Your task to perform on an android device: toggle airplane mode Image 0: 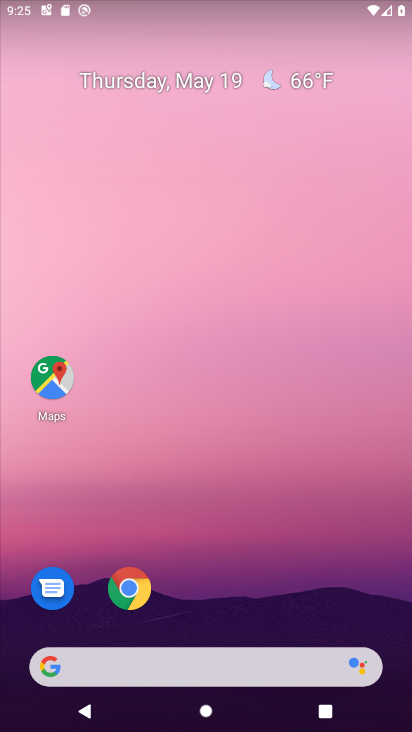
Step 0: drag from (353, 597) to (350, 238)
Your task to perform on an android device: toggle airplane mode Image 1: 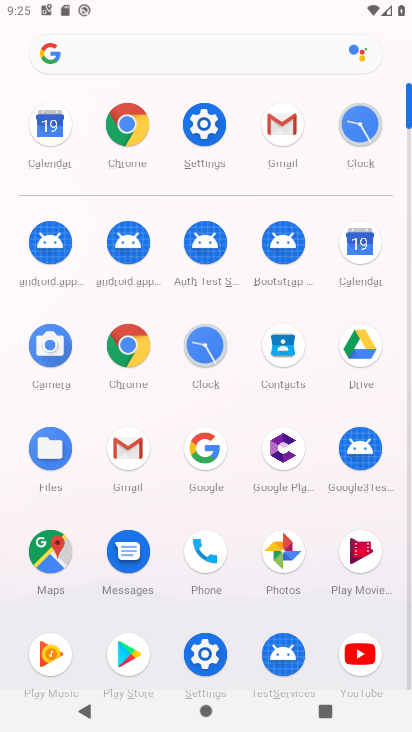
Step 1: click (212, 663)
Your task to perform on an android device: toggle airplane mode Image 2: 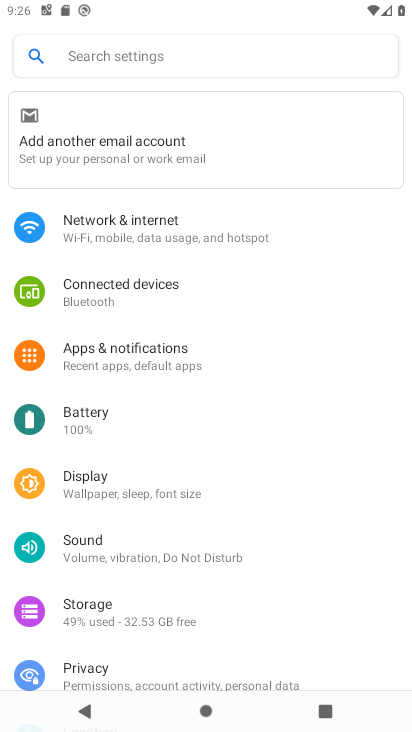
Step 2: drag from (323, 643) to (352, 535)
Your task to perform on an android device: toggle airplane mode Image 3: 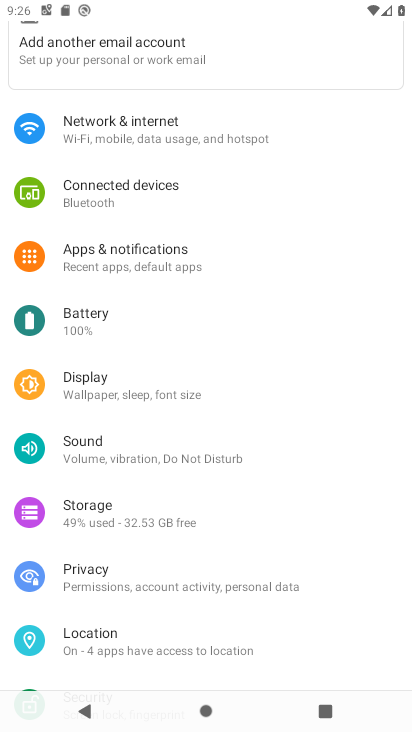
Step 3: drag from (347, 627) to (364, 486)
Your task to perform on an android device: toggle airplane mode Image 4: 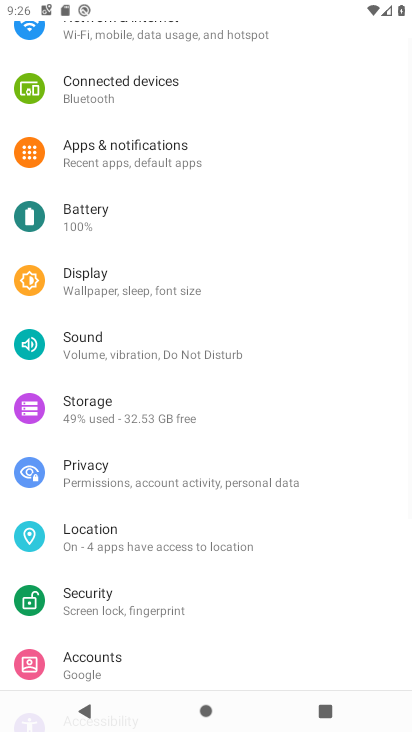
Step 4: drag from (340, 638) to (360, 502)
Your task to perform on an android device: toggle airplane mode Image 5: 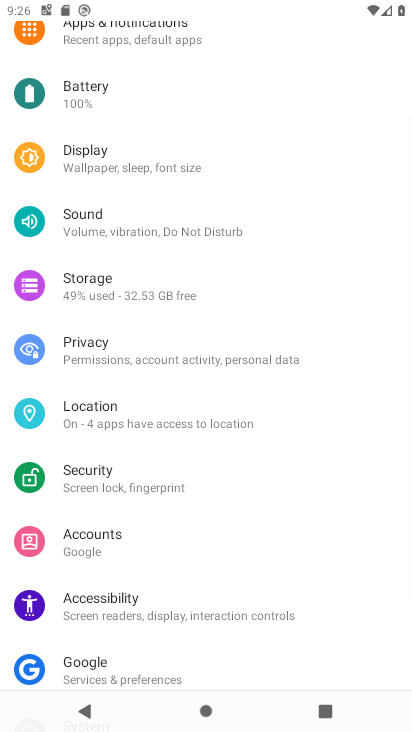
Step 5: drag from (373, 625) to (380, 491)
Your task to perform on an android device: toggle airplane mode Image 6: 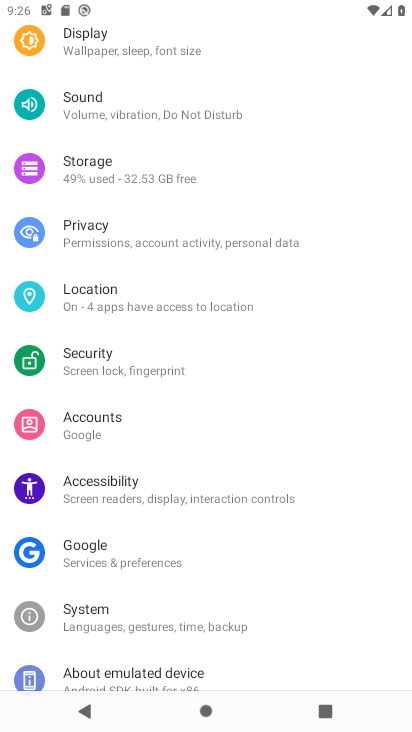
Step 6: drag from (379, 584) to (394, 478)
Your task to perform on an android device: toggle airplane mode Image 7: 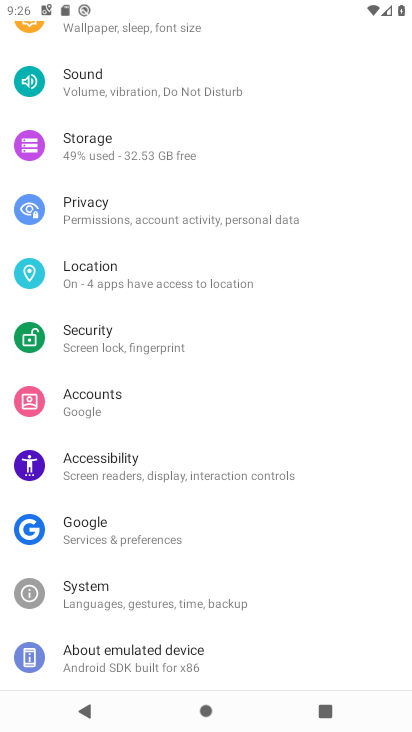
Step 7: drag from (378, 363) to (365, 441)
Your task to perform on an android device: toggle airplane mode Image 8: 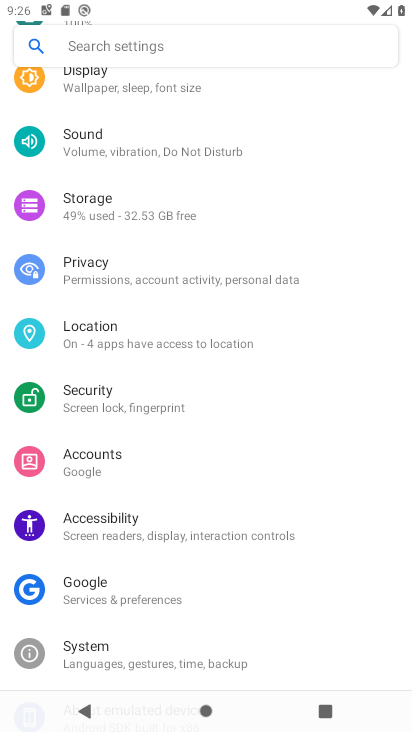
Step 8: drag from (372, 323) to (371, 386)
Your task to perform on an android device: toggle airplane mode Image 9: 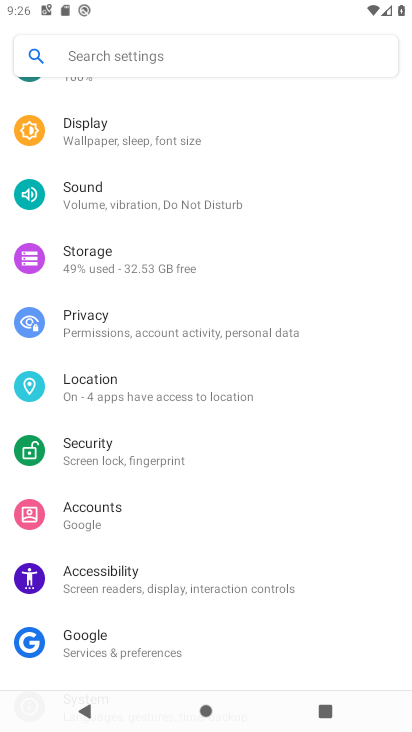
Step 9: drag from (367, 331) to (368, 437)
Your task to perform on an android device: toggle airplane mode Image 10: 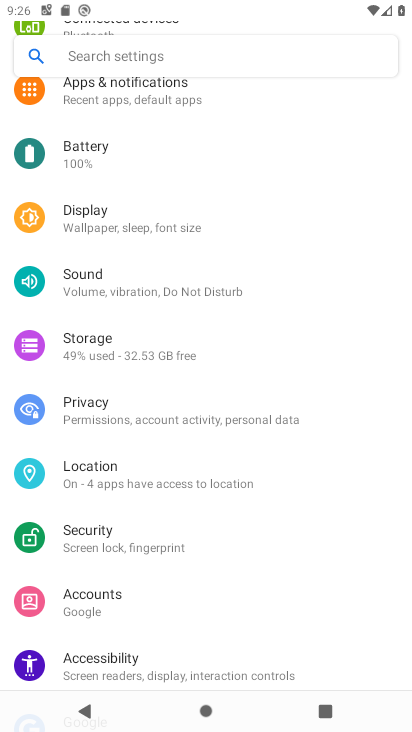
Step 10: drag from (368, 306) to (348, 432)
Your task to perform on an android device: toggle airplane mode Image 11: 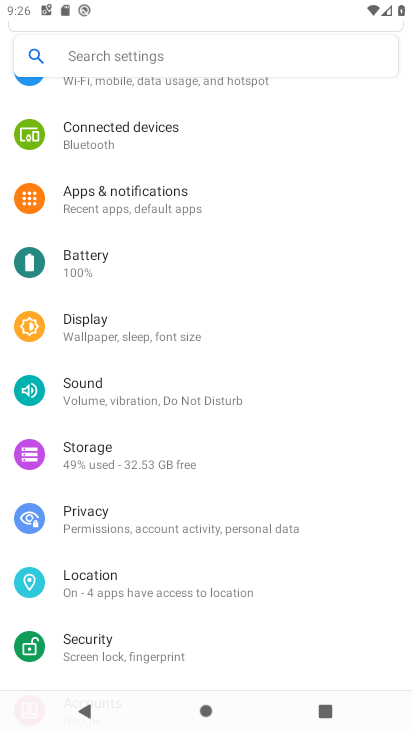
Step 11: drag from (353, 280) to (333, 418)
Your task to perform on an android device: toggle airplane mode Image 12: 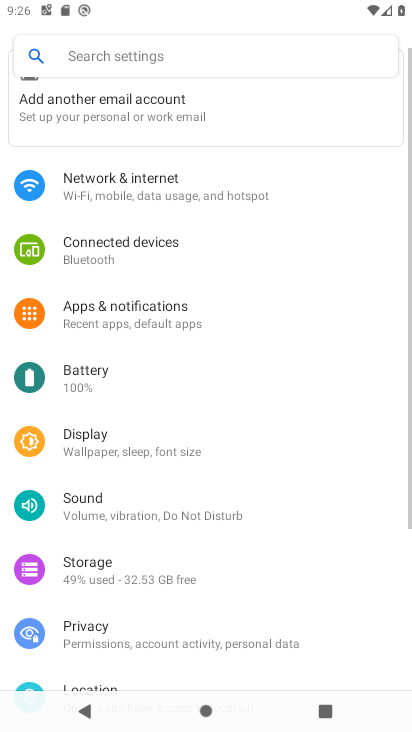
Step 12: drag from (346, 250) to (341, 359)
Your task to perform on an android device: toggle airplane mode Image 13: 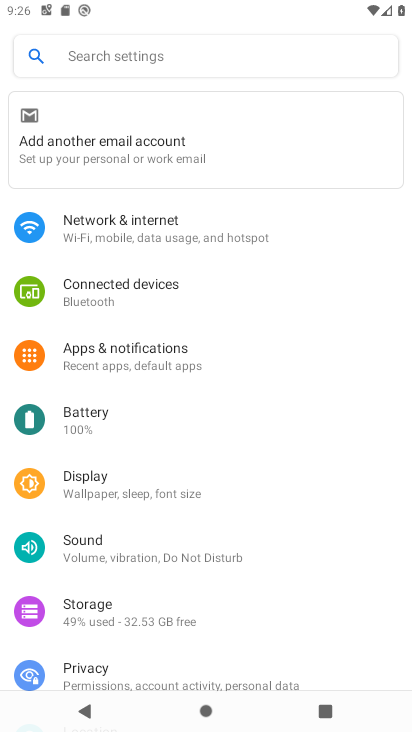
Step 13: click (278, 234)
Your task to perform on an android device: toggle airplane mode Image 14: 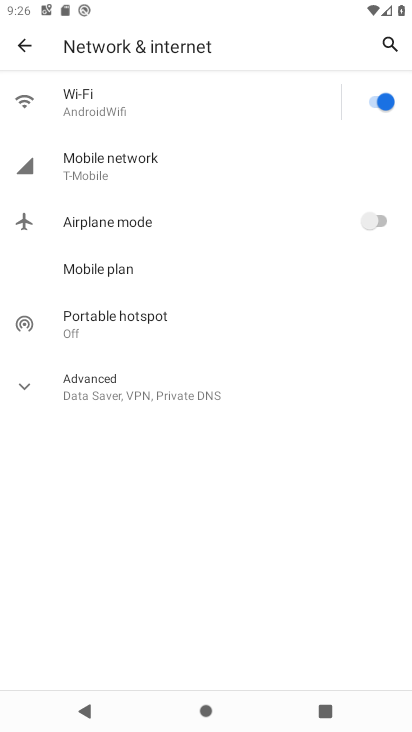
Step 14: click (370, 224)
Your task to perform on an android device: toggle airplane mode Image 15: 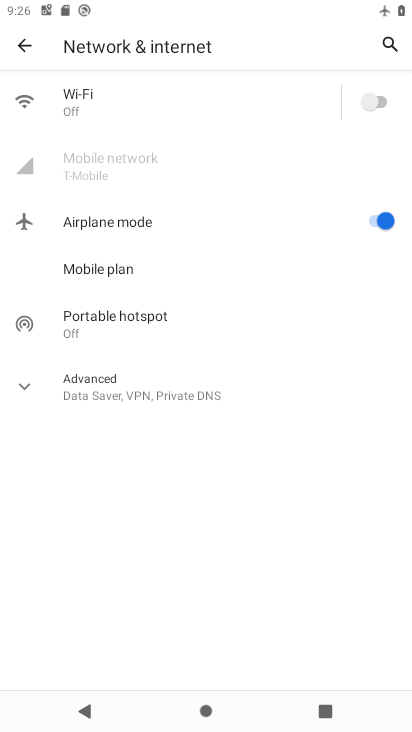
Step 15: task complete